Your task to perform on an android device: Open Google Maps Image 0: 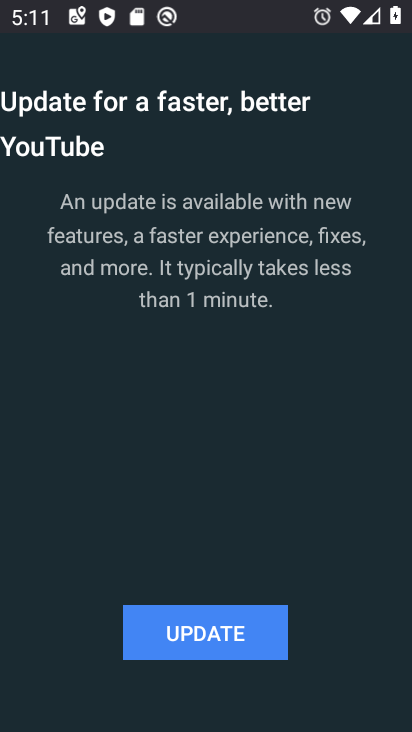
Step 0: press back button
Your task to perform on an android device: Open Google Maps Image 1: 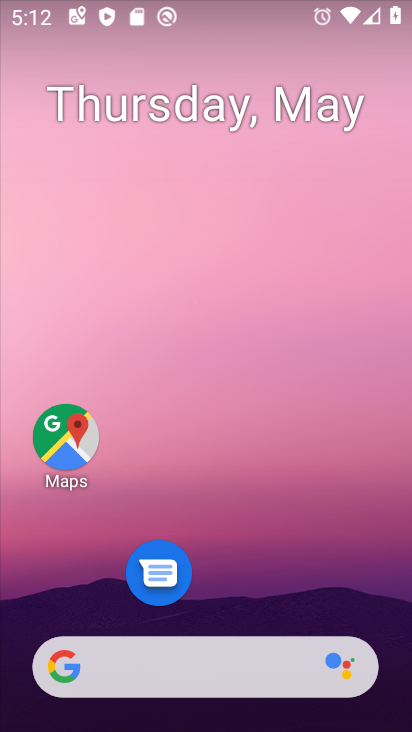
Step 1: drag from (229, 607) to (202, 152)
Your task to perform on an android device: Open Google Maps Image 2: 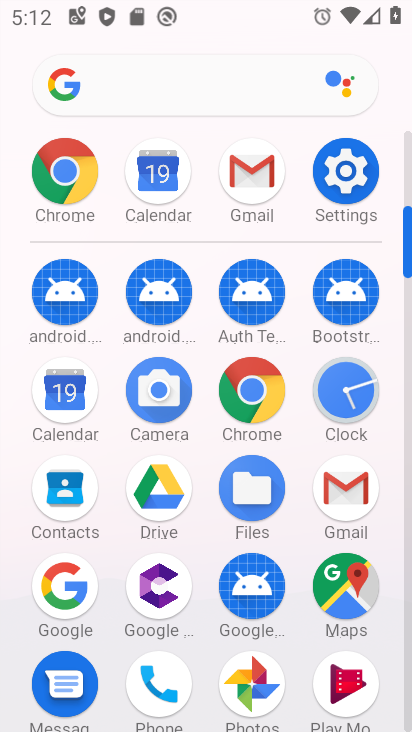
Step 2: click (350, 588)
Your task to perform on an android device: Open Google Maps Image 3: 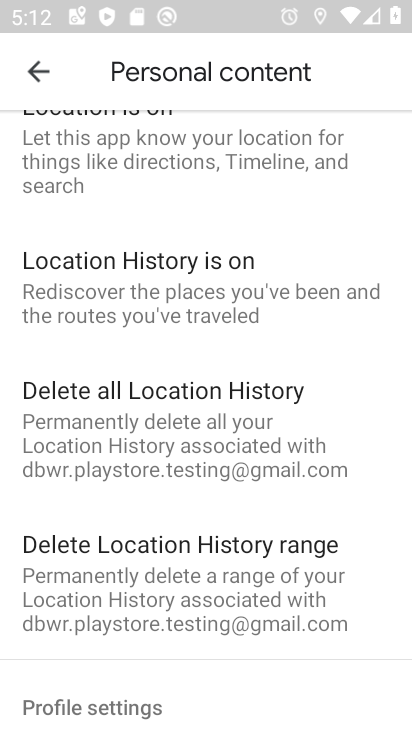
Step 3: click (43, 72)
Your task to perform on an android device: Open Google Maps Image 4: 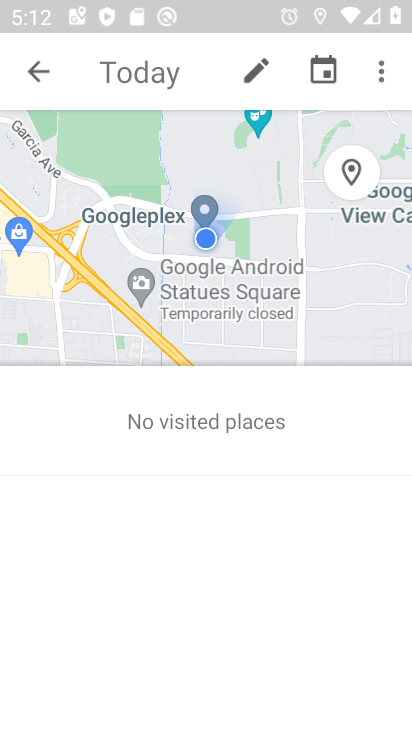
Step 4: task complete